Your task to perform on an android device: What's the weather going to be this weekend? Image 0: 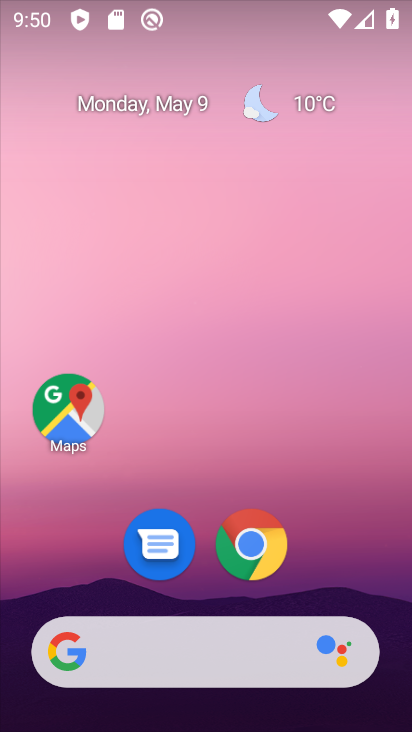
Step 0: drag from (395, 547) to (375, 321)
Your task to perform on an android device: What's the weather going to be this weekend? Image 1: 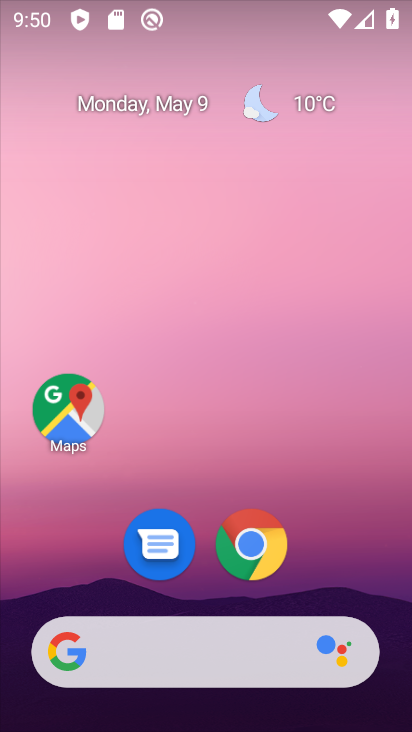
Step 1: drag from (402, 667) to (394, 270)
Your task to perform on an android device: What's the weather going to be this weekend? Image 2: 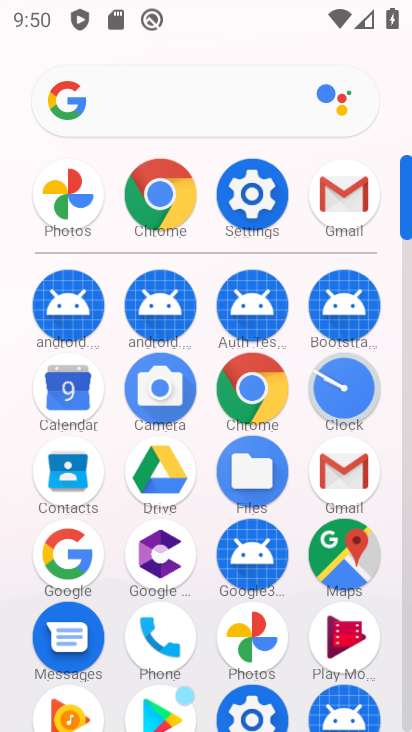
Step 2: press back button
Your task to perform on an android device: What's the weather going to be this weekend? Image 3: 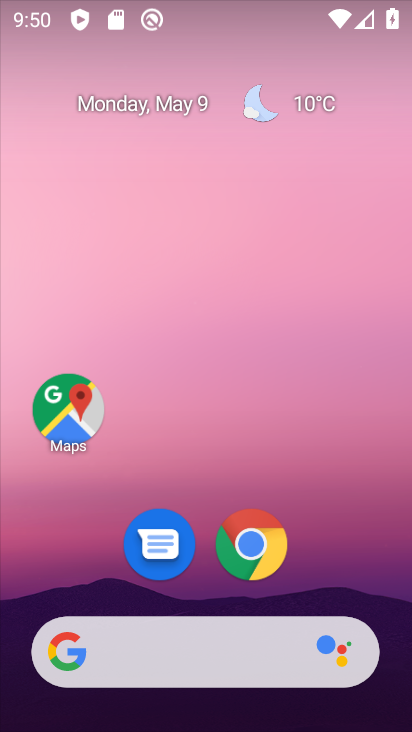
Step 3: drag from (49, 181) to (308, 187)
Your task to perform on an android device: What's the weather going to be this weekend? Image 4: 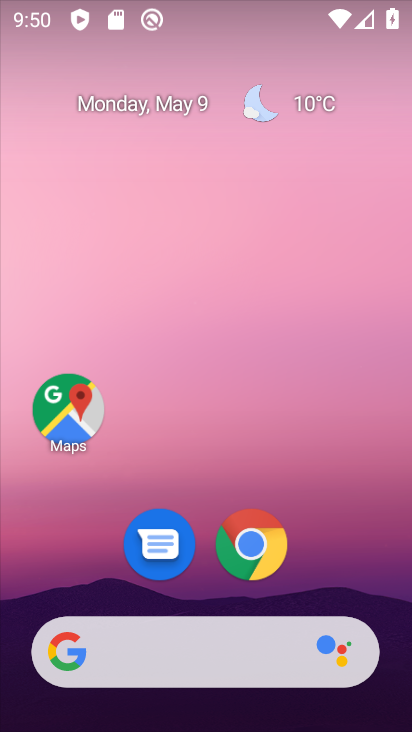
Step 4: drag from (0, 152) to (333, 224)
Your task to perform on an android device: What's the weather going to be this weekend? Image 5: 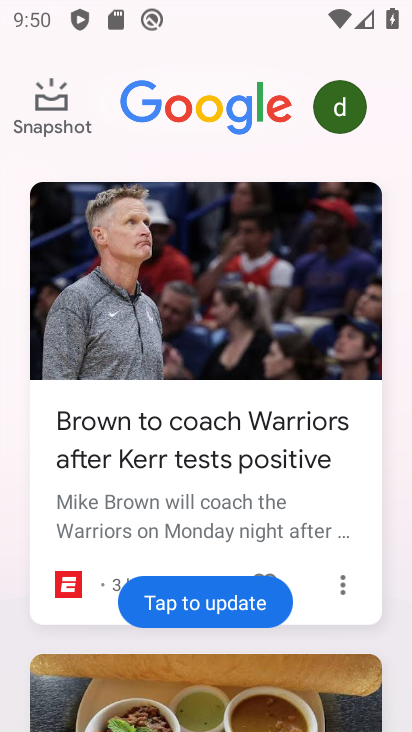
Step 5: click (348, 645)
Your task to perform on an android device: What's the weather going to be this weekend? Image 6: 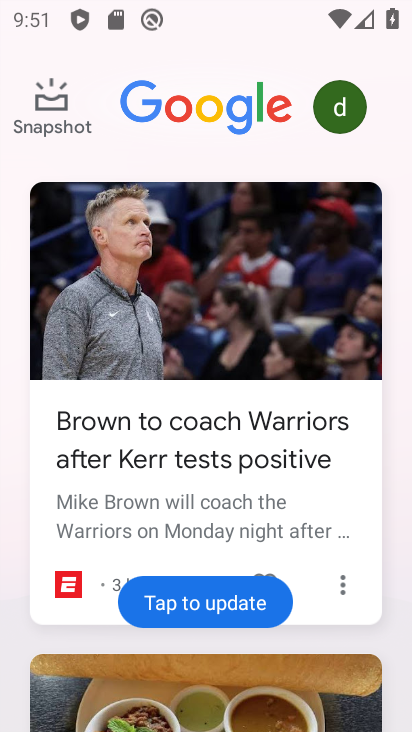
Step 6: press back button
Your task to perform on an android device: What's the weather going to be this weekend? Image 7: 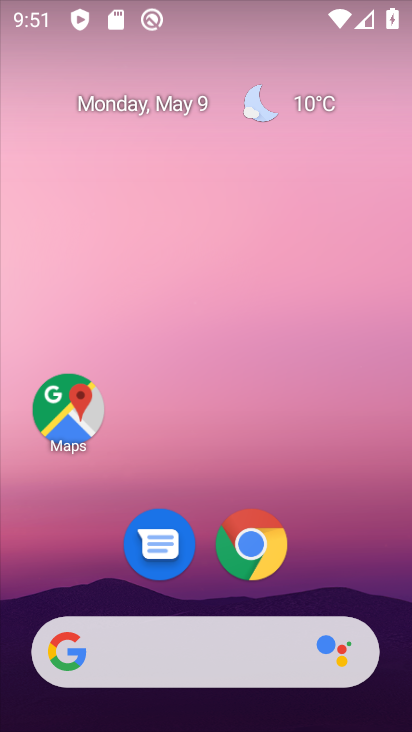
Step 7: click (278, 109)
Your task to perform on an android device: What's the weather going to be this weekend? Image 8: 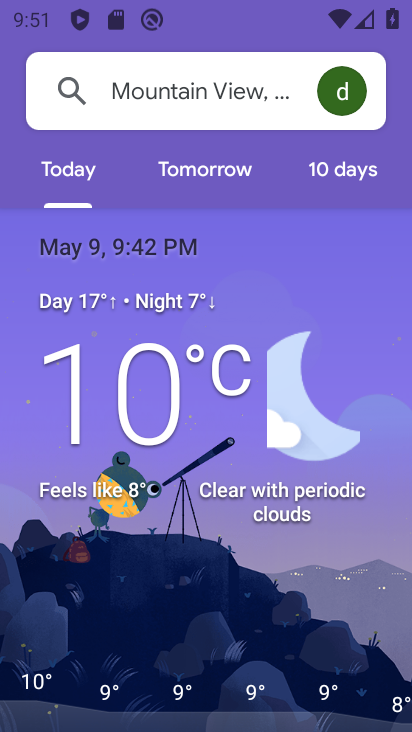
Step 8: click (325, 163)
Your task to perform on an android device: What's the weather going to be this weekend? Image 9: 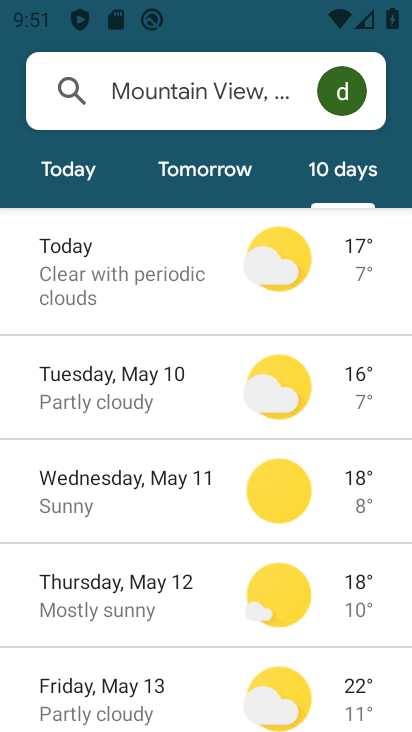
Step 9: task complete